Your task to perform on an android device: open app "Google Docs" Image 0: 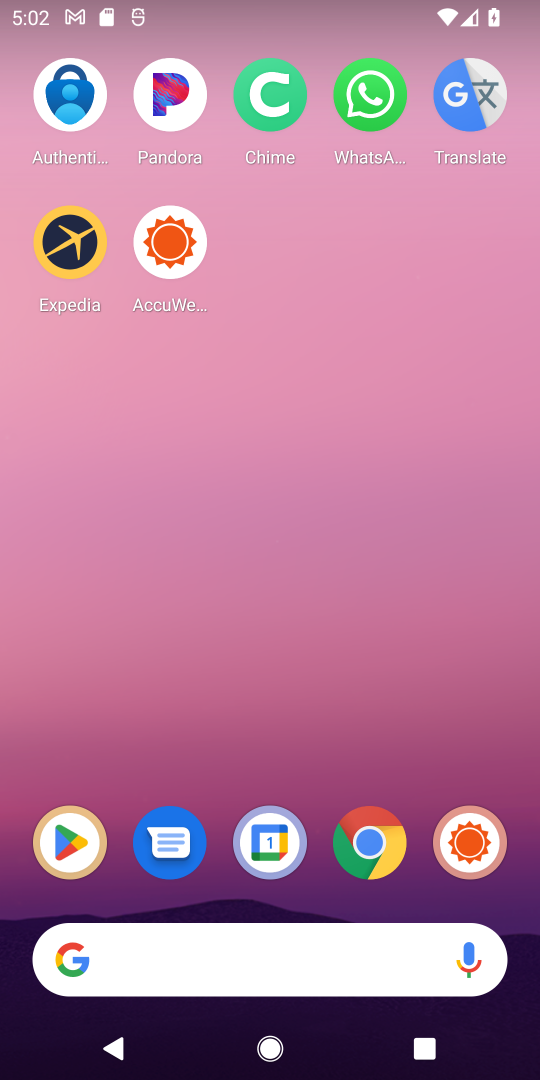
Step 0: drag from (292, 1048) to (222, 690)
Your task to perform on an android device: open app "Google Docs" Image 1: 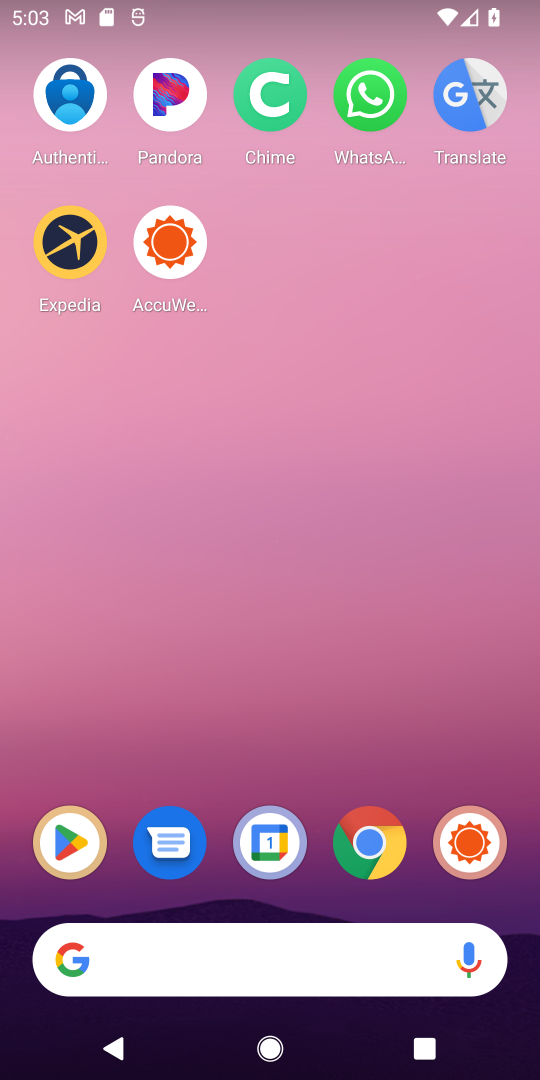
Step 1: drag from (253, 707) to (181, 179)
Your task to perform on an android device: open app "Google Docs" Image 2: 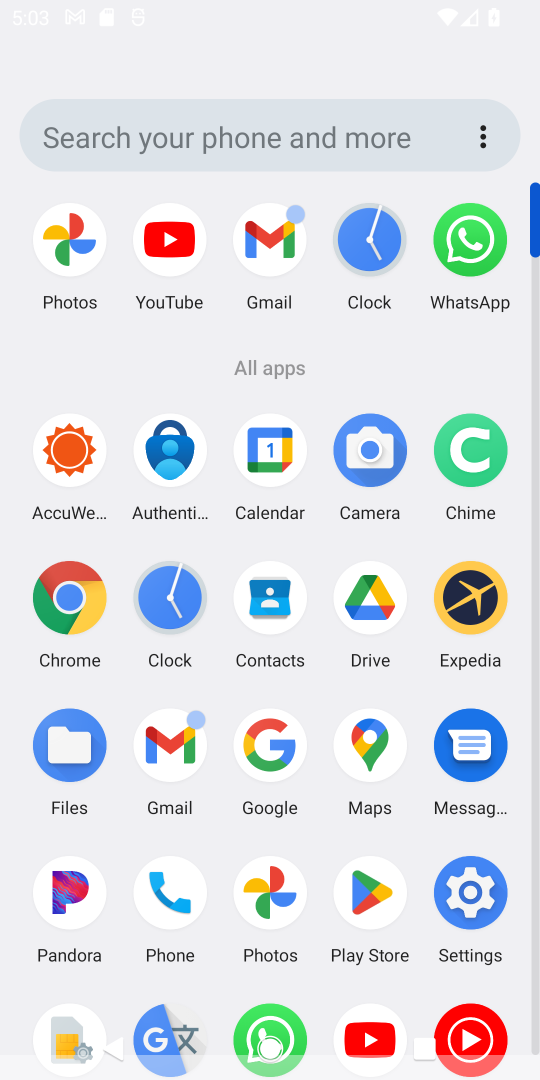
Step 2: click (221, 299)
Your task to perform on an android device: open app "Google Docs" Image 3: 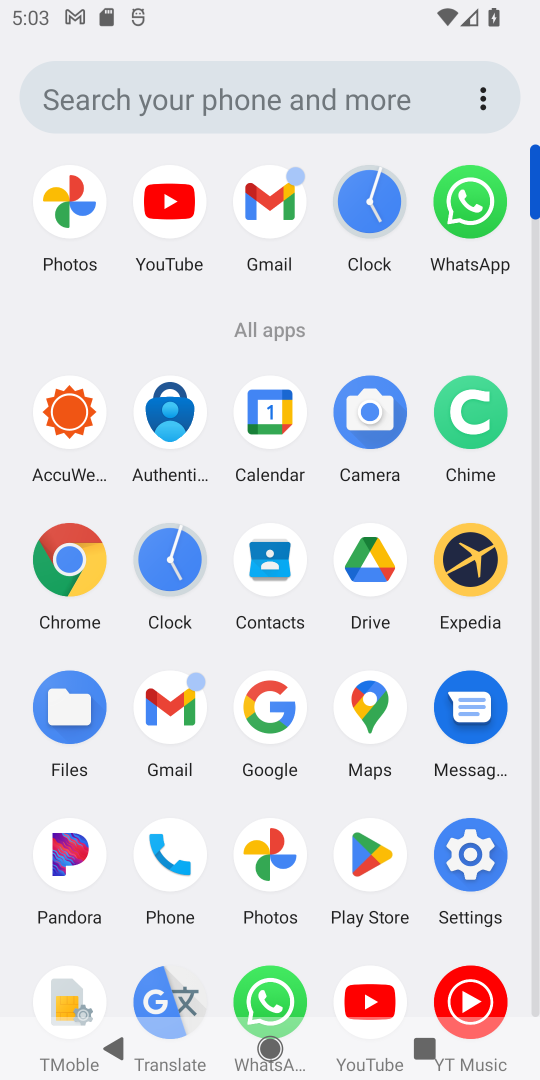
Step 3: click (392, 841)
Your task to perform on an android device: open app "Google Docs" Image 4: 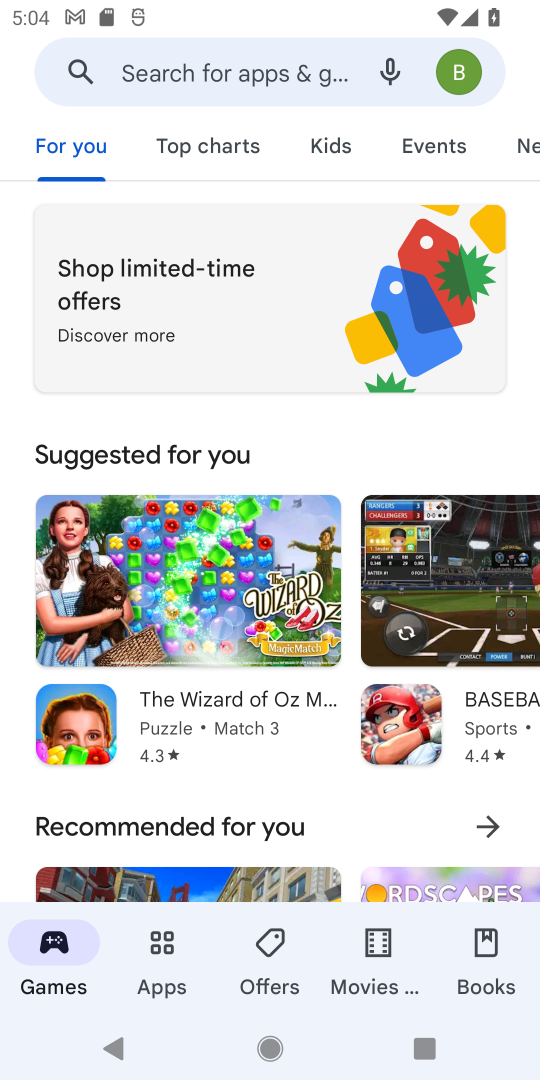
Step 4: click (158, 72)
Your task to perform on an android device: open app "Google Docs" Image 5: 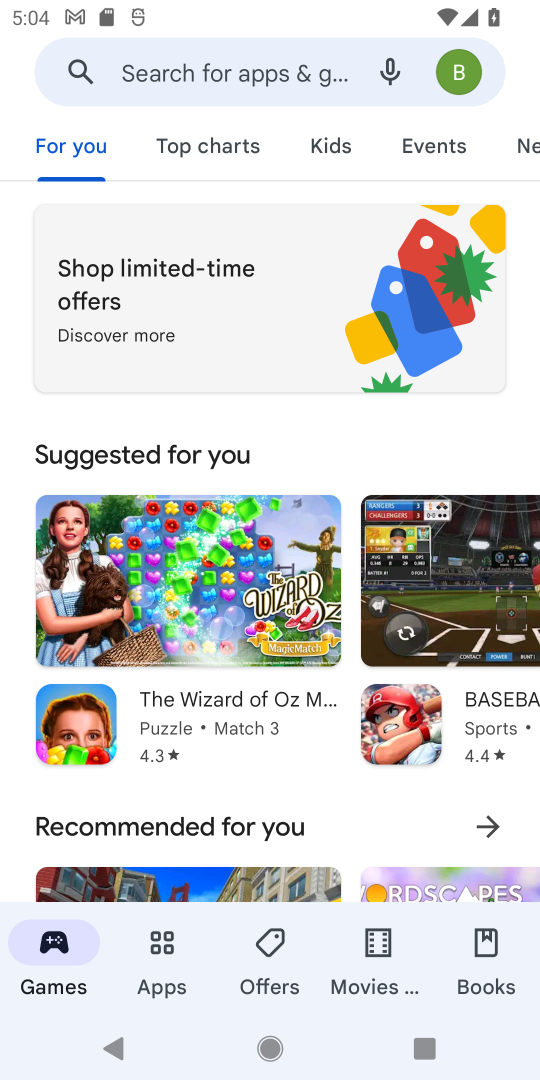
Step 5: click (190, 112)
Your task to perform on an android device: open app "Google Docs" Image 6: 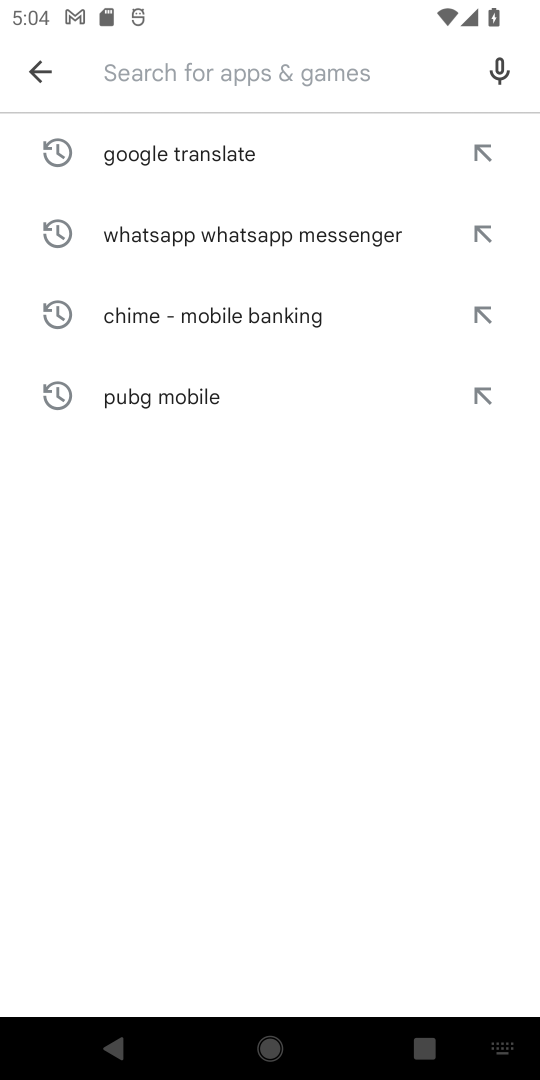
Step 6: type "google docs"
Your task to perform on an android device: open app "Google Docs" Image 7: 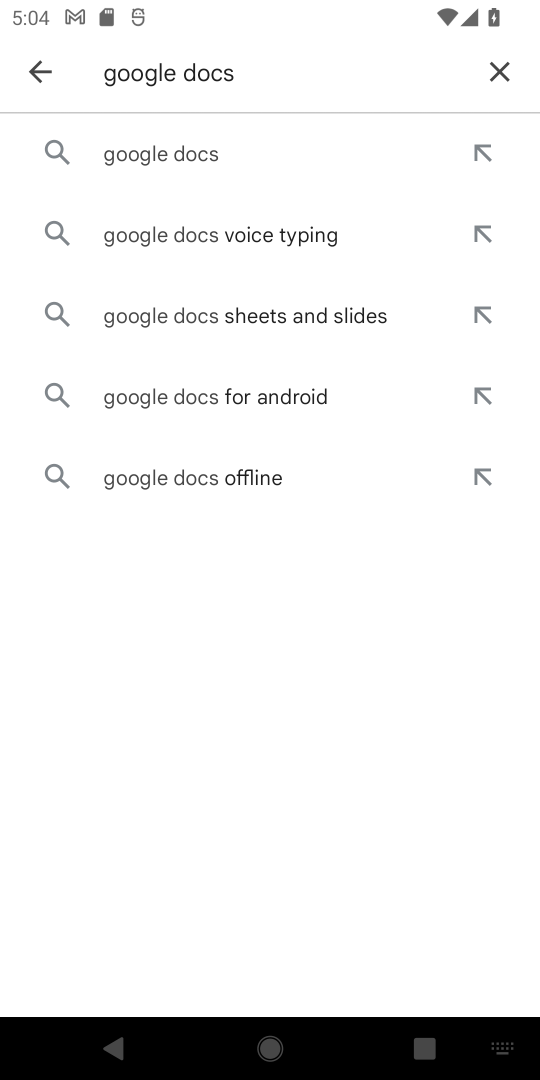
Step 7: click (188, 147)
Your task to perform on an android device: open app "Google Docs" Image 8: 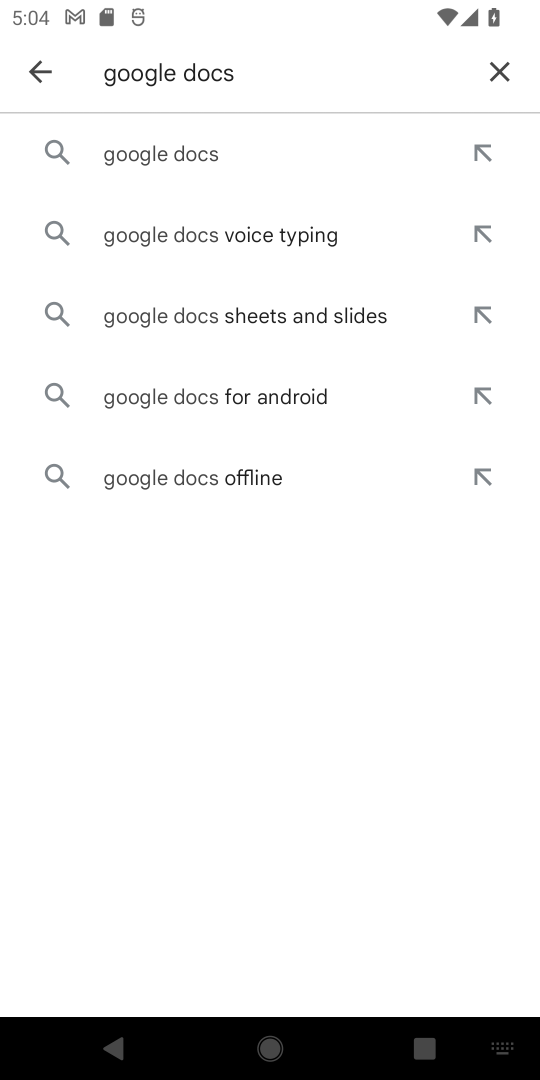
Step 8: click (183, 147)
Your task to perform on an android device: open app "Google Docs" Image 9: 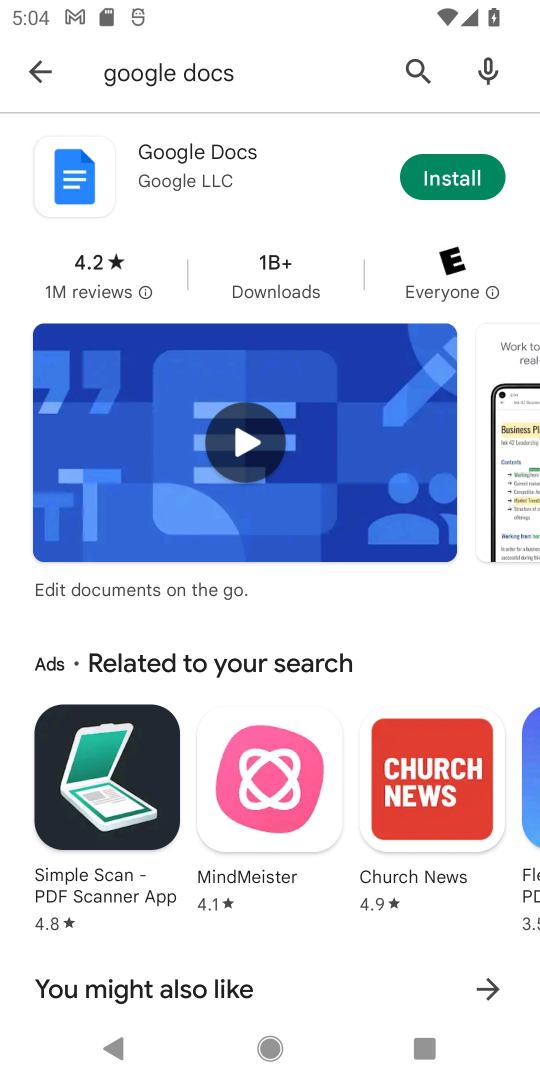
Step 9: click (462, 155)
Your task to perform on an android device: open app "Google Docs" Image 10: 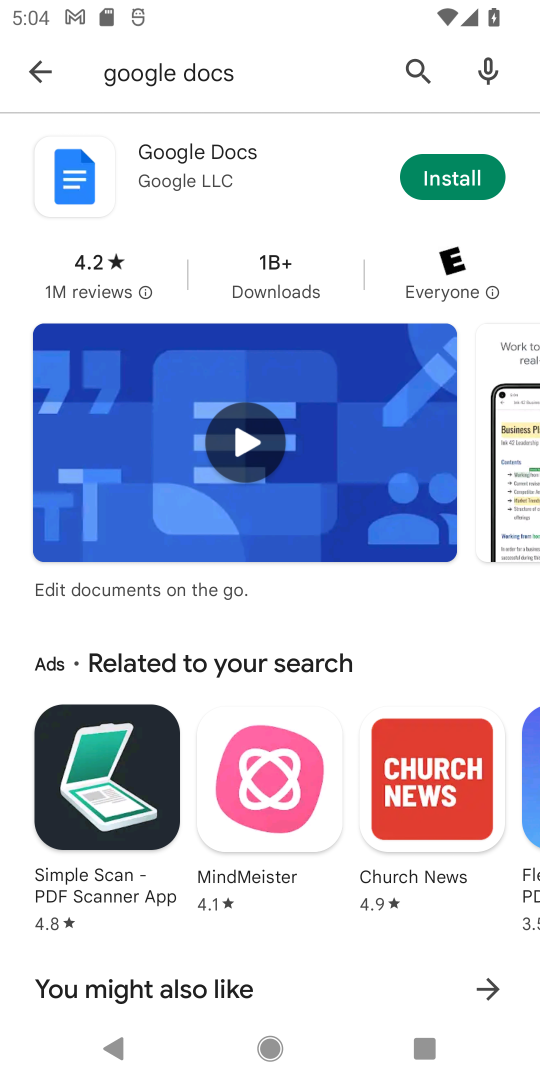
Step 10: click (461, 158)
Your task to perform on an android device: open app "Google Docs" Image 11: 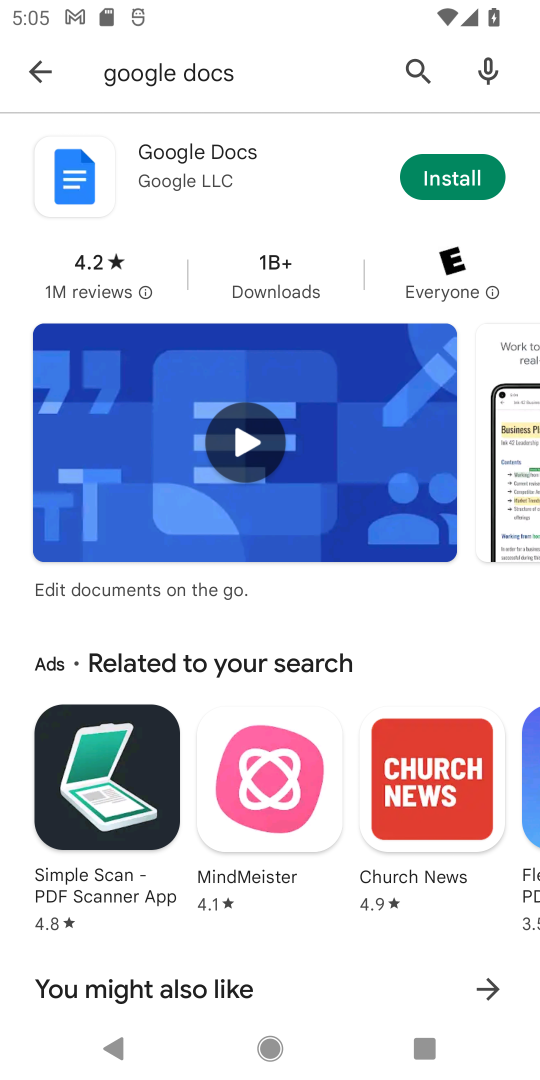
Step 11: click (473, 165)
Your task to perform on an android device: open app "Google Docs" Image 12: 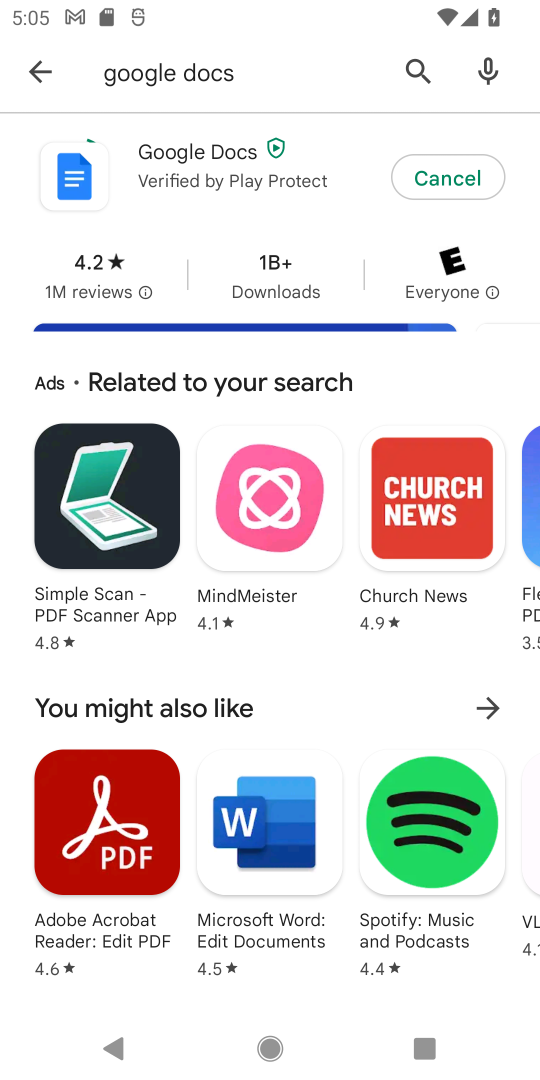
Step 12: click (477, 171)
Your task to perform on an android device: open app "Google Docs" Image 13: 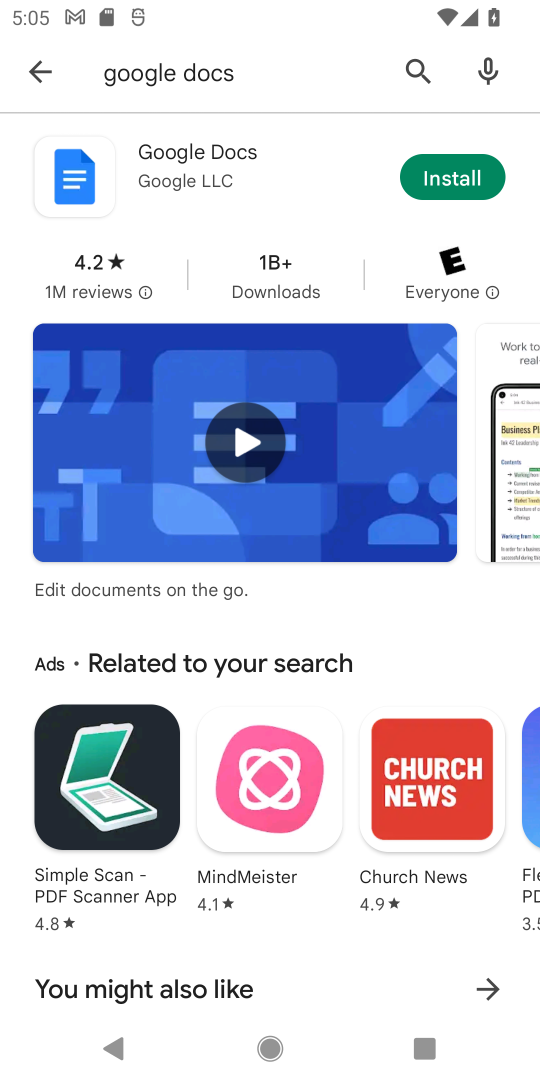
Step 13: task complete